Your task to perform on an android device: allow cookies in the chrome app Image 0: 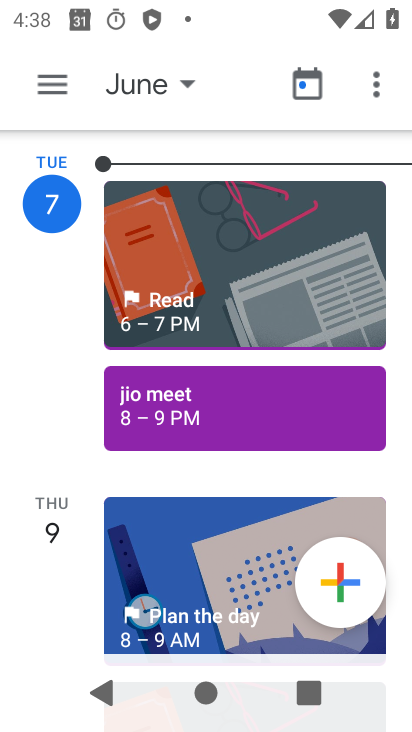
Step 0: press home button
Your task to perform on an android device: allow cookies in the chrome app Image 1: 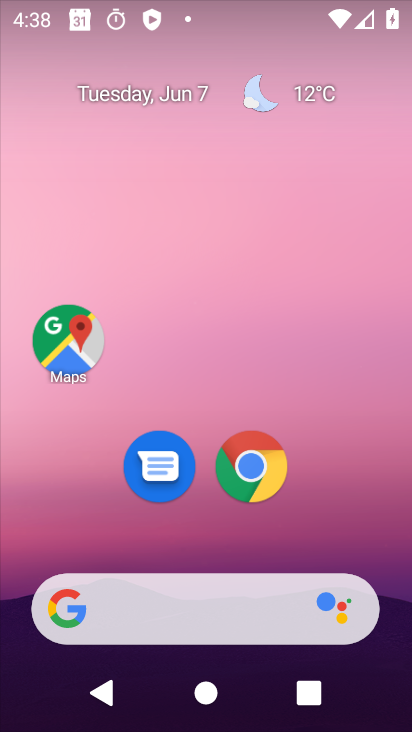
Step 1: click (260, 482)
Your task to perform on an android device: allow cookies in the chrome app Image 2: 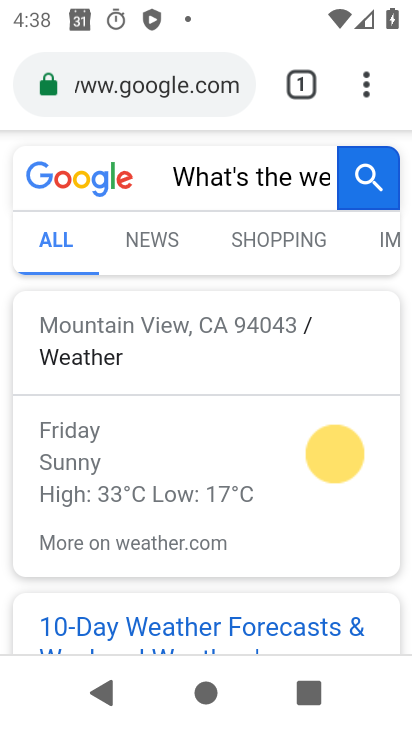
Step 2: click (373, 97)
Your task to perform on an android device: allow cookies in the chrome app Image 3: 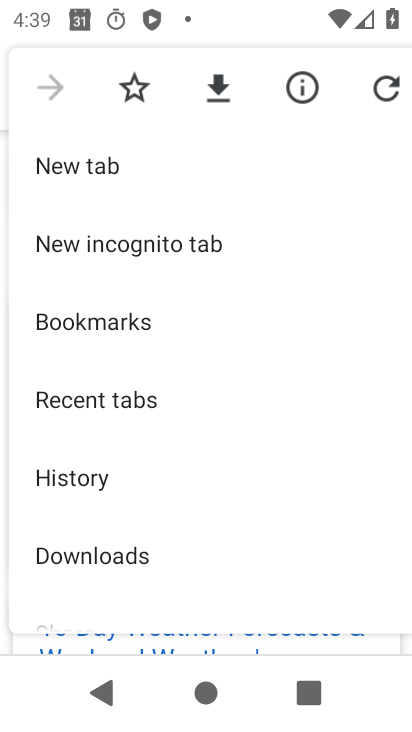
Step 3: drag from (229, 554) to (171, 199)
Your task to perform on an android device: allow cookies in the chrome app Image 4: 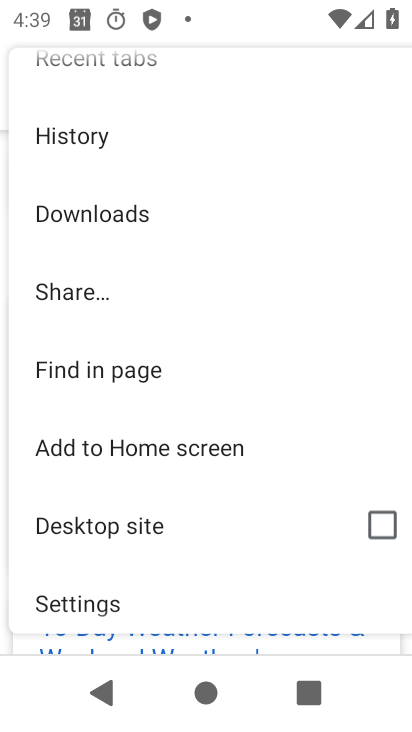
Step 4: drag from (178, 579) to (163, 111)
Your task to perform on an android device: allow cookies in the chrome app Image 5: 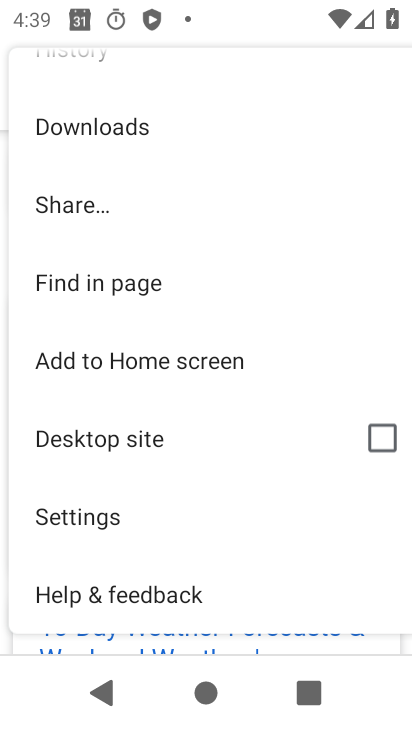
Step 5: drag from (199, 196) to (240, 582)
Your task to perform on an android device: allow cookies in the chrome app Image 6: 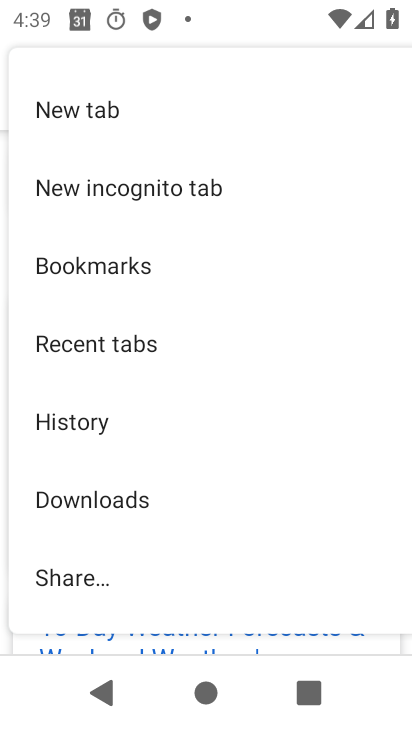
Step 6: drag from (168, 524) to (174, 82)
Your task to perform on an android device: allow cookies in the chrome app Image 7: 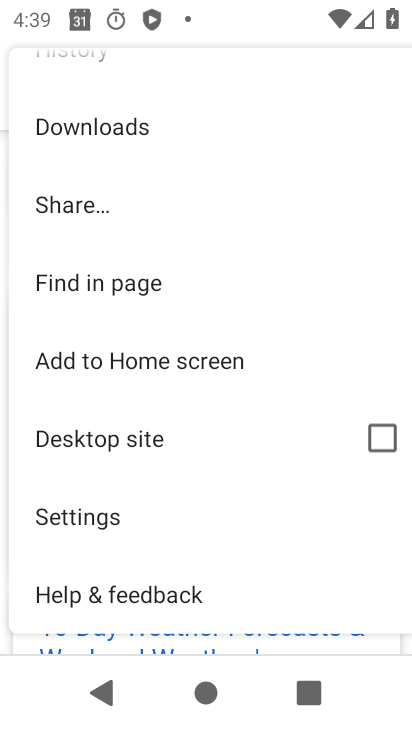
Step 7: click (142, 529)
Your task to perform on an android device: allow cookies in the chrome app Image 8: 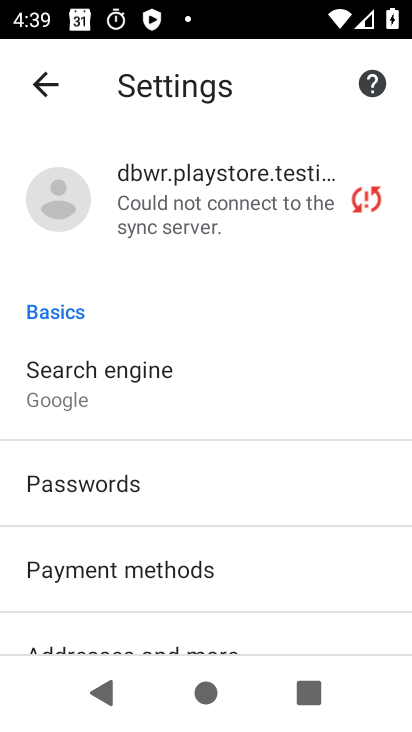
Step 8: drag from (345, 581) to (266, 195)
Your task to perform on an android device: allow cookies in the chrome app Image 9: 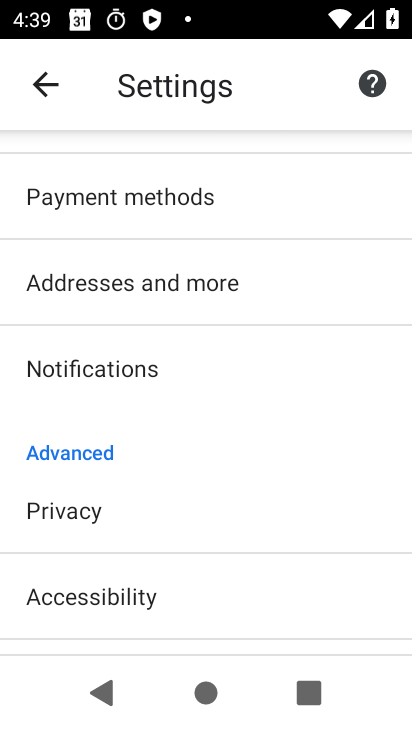
Step 9: drag from (312, 553) to (268, 247)
Your task to perform on an android device: allow cookies in the chrome app Image 10: 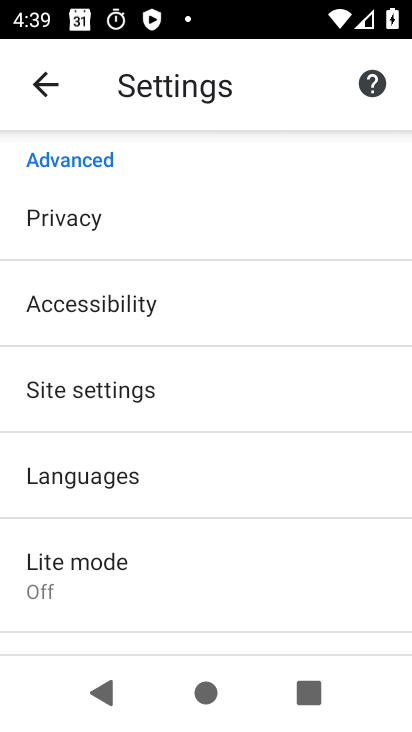
Step 10: click (172, 373)
Your task to perform on an android device: allow cookies in the chrome app Image 11: 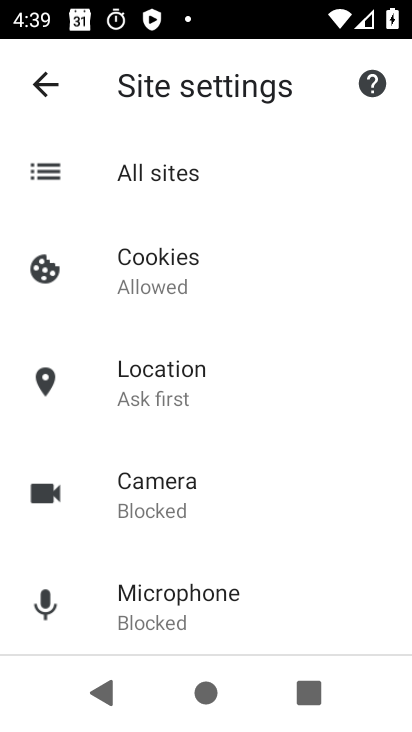
Step 11: click (220, 288)
Your task to perform on an android device: allow cookies in the chrome app Image 12: 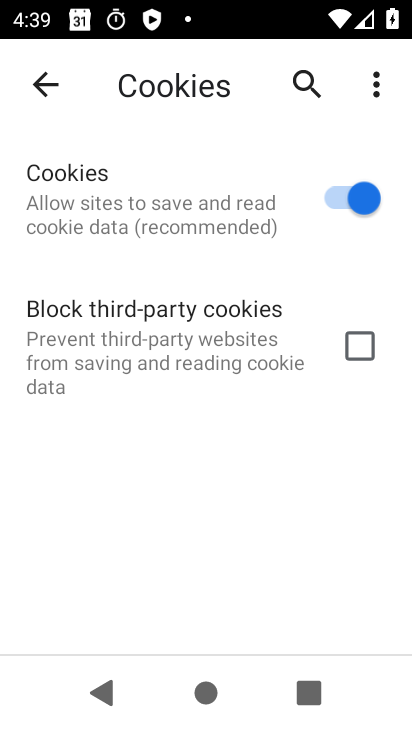
Step 12: task complete